Your task to perform on an android device: add a contact Image 0: 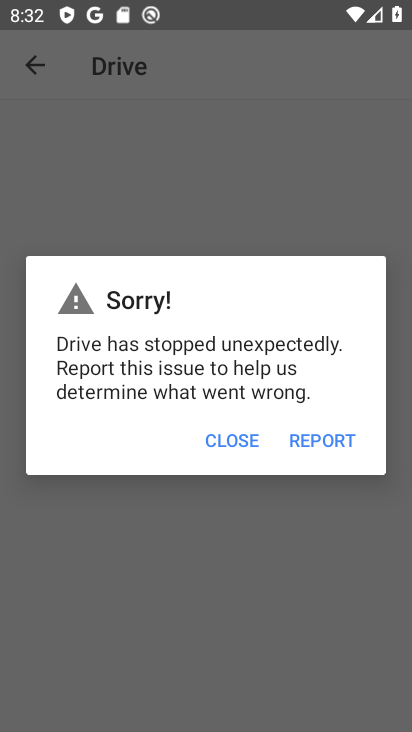
Step 0: click (231, 432)
Your task to perform on an android device: add a contact Image 1: 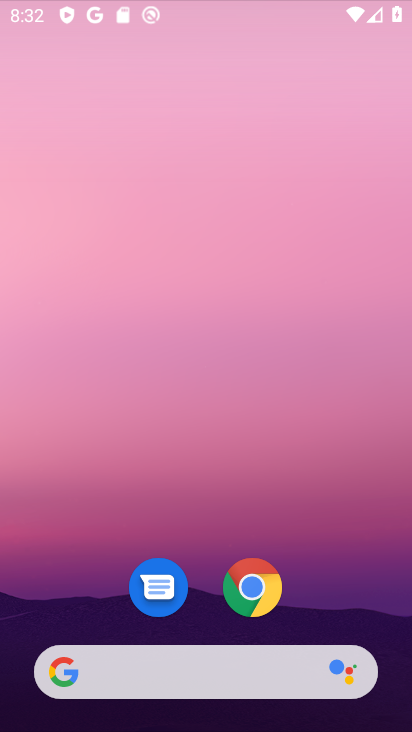
Step 1: click (231, 432)
Your task to perform on an android device: add a contact Image 2: 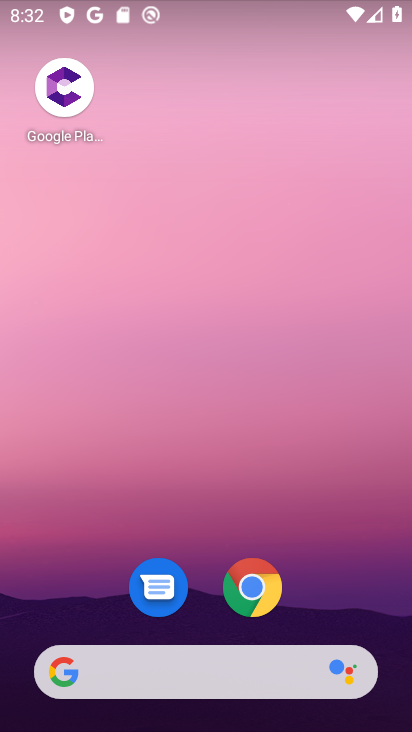
Step 2: drag from (345, 585) to (242, 77)
Your task to perform on an android device: add a contact Image 3: 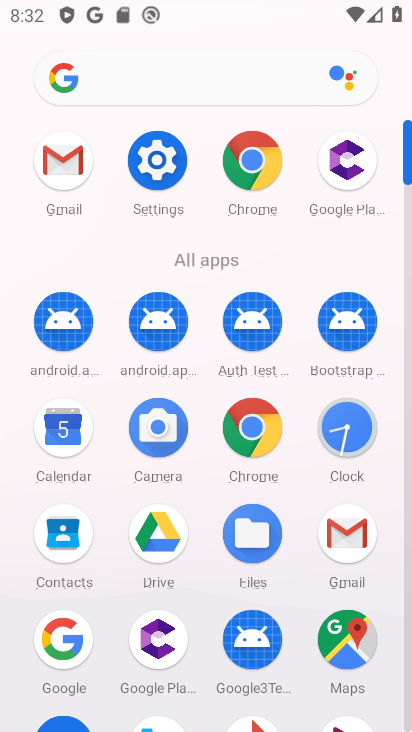
Step 3: click (62, 539)
Your task to perform on an android device: add a contact Image 4: 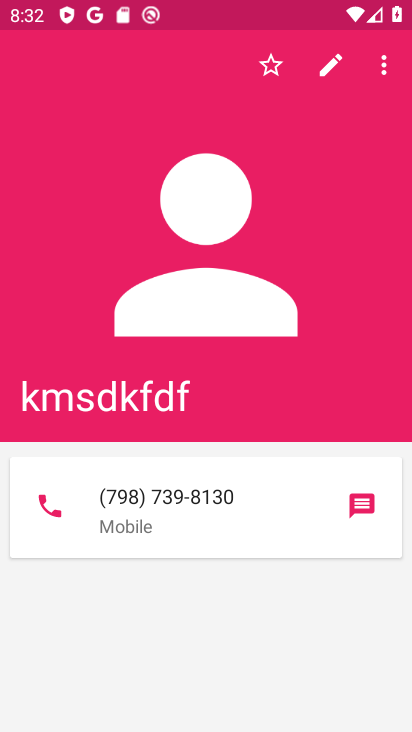
Step 4: press back button
Your task to perform on an android device: add a contact Image 5: 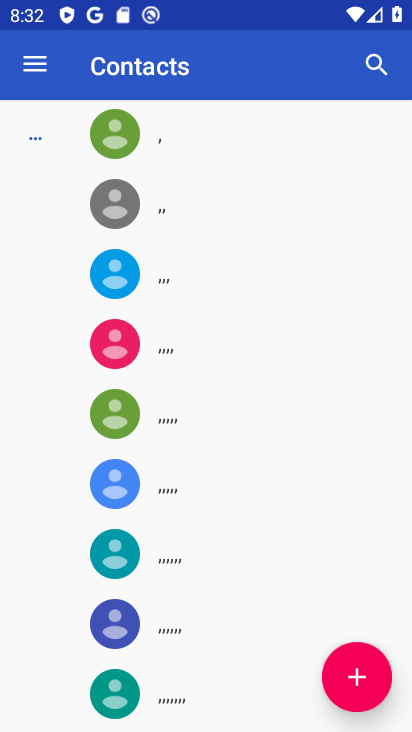
Step 5: click (362, 666)
Your task to perform on an android device: add a contact Image 6: 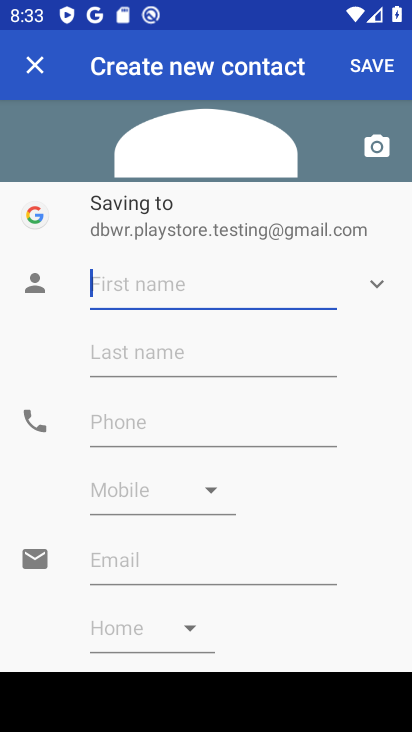
Step 6: click (179, 274)
Your task to perform on an android device: add a contact Image 7: 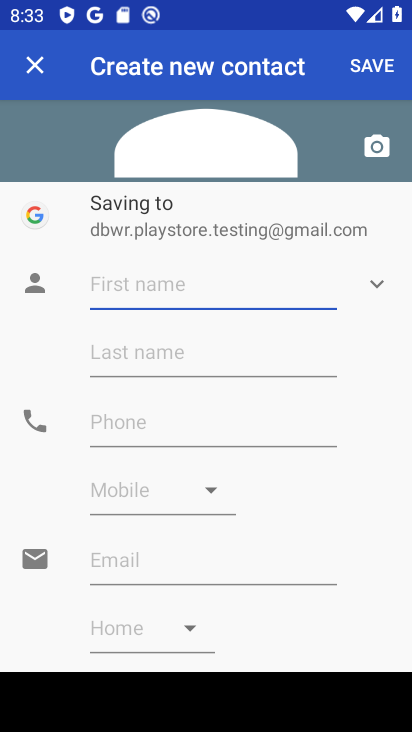
Step 7: type "nfjdfndjfds"
Your task to perform on an android device: add a contact Image 8: 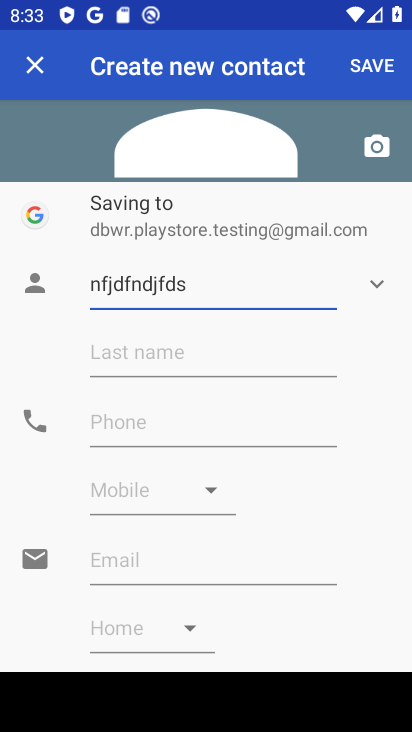
Step 8: click (131, 409)
Your task to perform on an android device: add a contact Image 9: 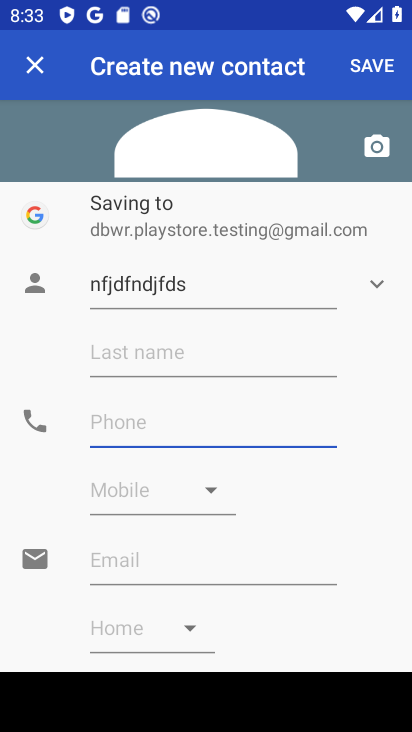
Step 9: type "984230809"
Your task to perform on an android device: add a contact Image 10: 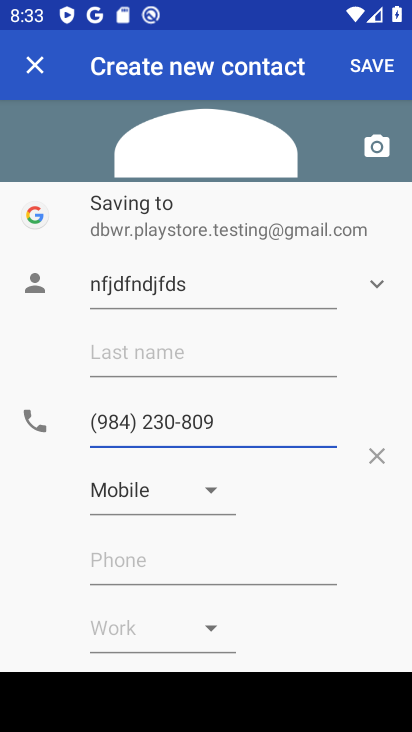
Step 10: click (378, 71)
Your task to perform on an android device: add a contact Image 11: 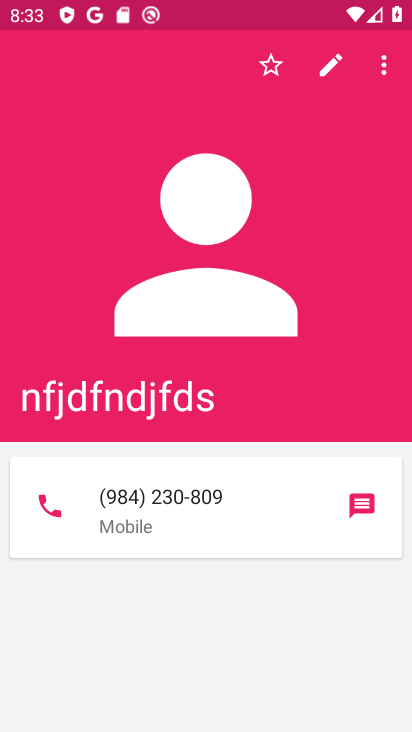
Step 11: task complete